Your task to perform on an android device: open device folders in google photos Image 0: 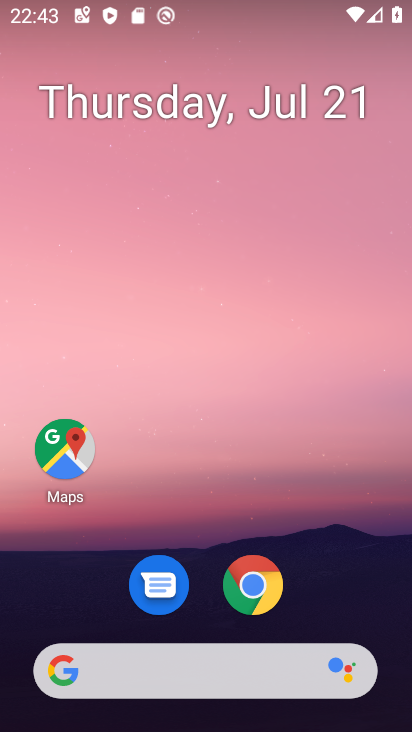
Step 0: drag from (222, 631) to (391, 163)
Your task to perform on an android device: open device folders in google photos Image 1: 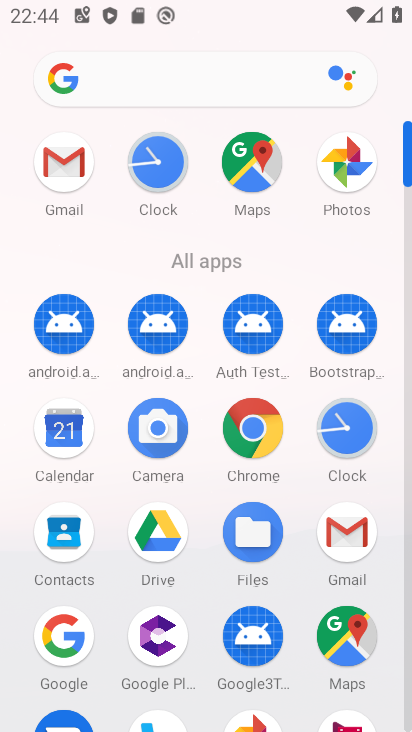
Step 1: click (339, 164)
Your task to perform on an android device: open device folders in google photos Image 2: 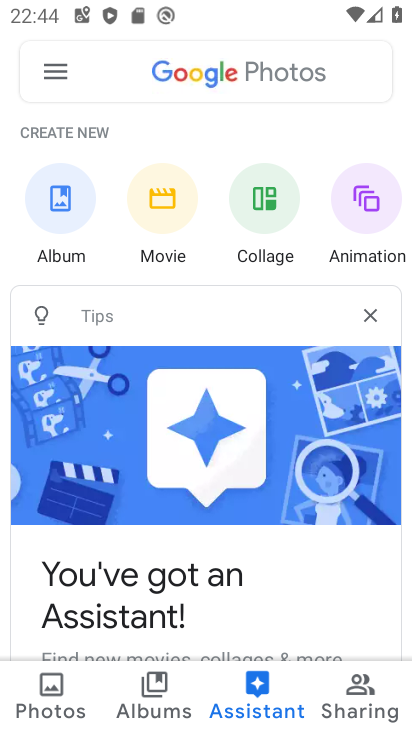
Step 2: click (65, 81)
Your task to perform on an android device: open device folders in google photos Image 3: 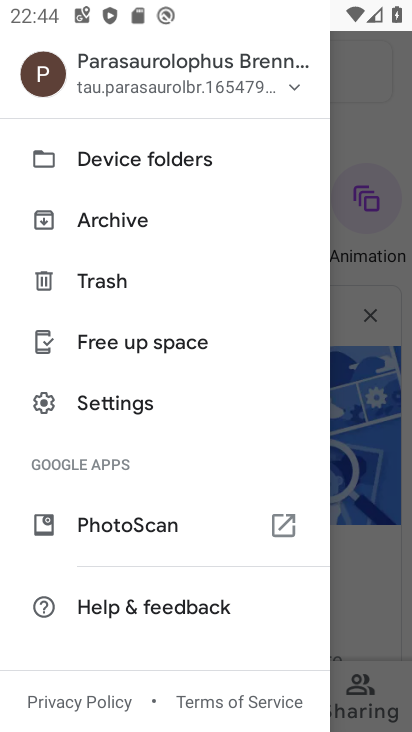
Step 3: click (159, 156)
Your task to perform on an android device: open device folders in google photos Image 4: 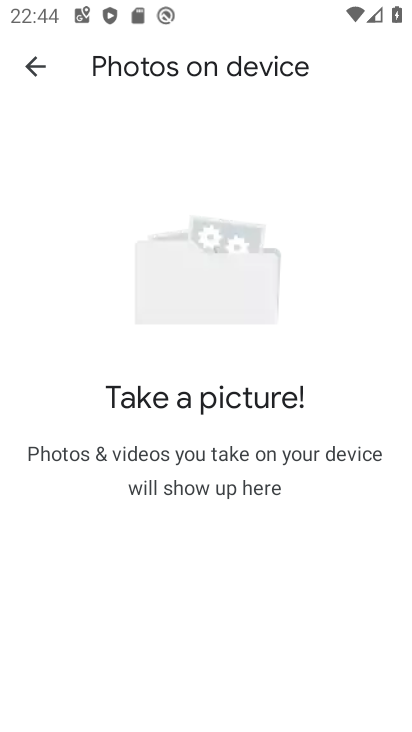
Step 4: task complete